Your task to perform on an android device: turn off improve location accuracy Image 0: 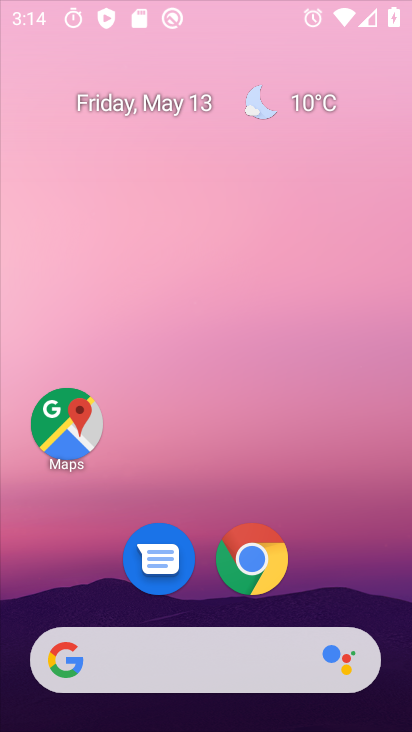
Step 0: drag from (174, 276) to (210, 183)
Your task to perform on an android device: turn off improve location accuracy Image 1: 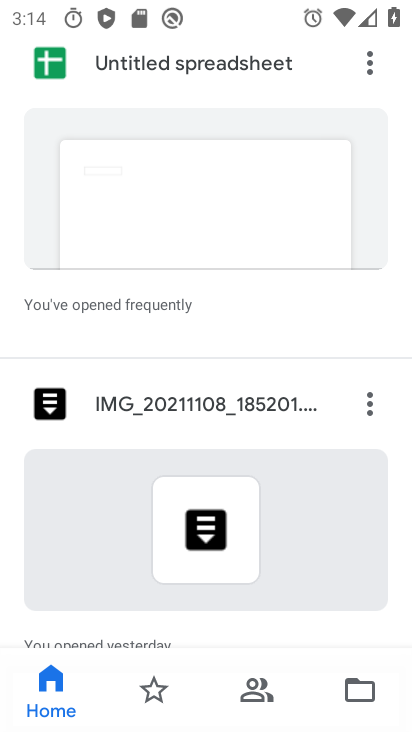
Step 1: press home button
Your task to perform on an android device: turn off improve location accuracy Image 2: 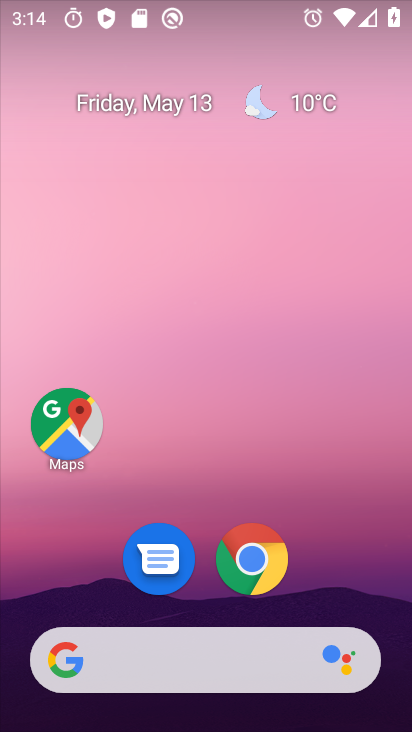
Step 2: drag from (204, 607) to (215, 150)
Your task to perform on an android device: turn off improve location accuracy Image 3: 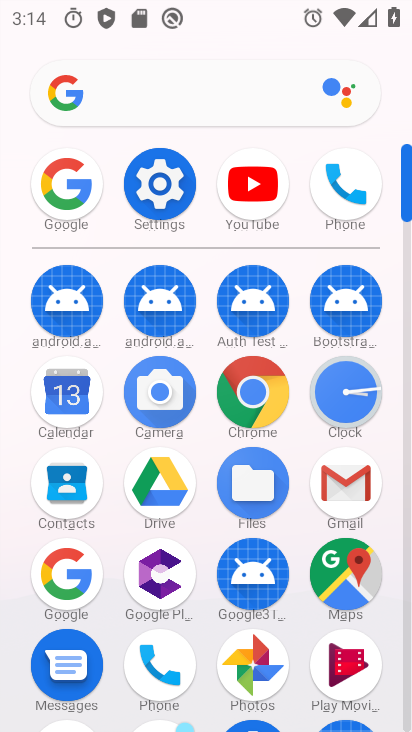
Step 3: click (177, 185)
Your task to perform on an android device: turn off improve location accuracy Image 4: 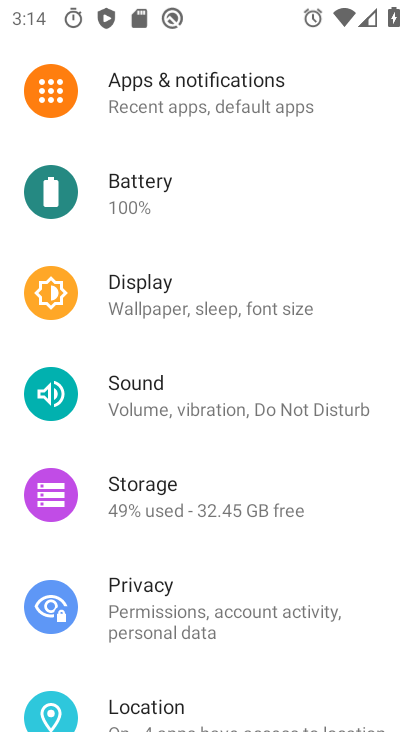
Step 4: click (201, 701)
Your task to perform on an android device: turn off improve location accuracy Image 5: 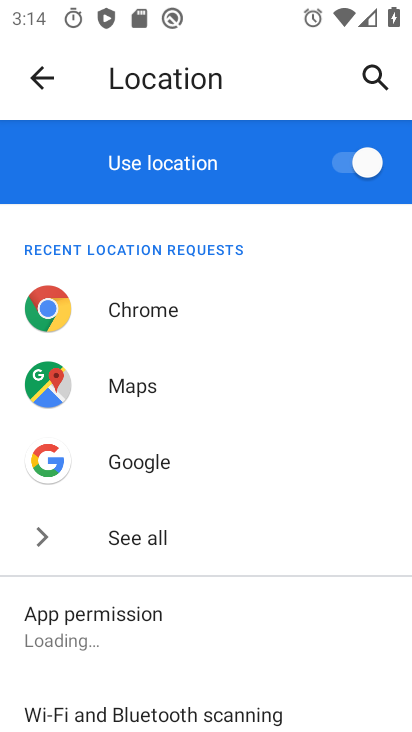
Step 5: drag from (216, 649) to (217, 326)
Your task to perform on an android device: turn off improve location accuracy Image 6: 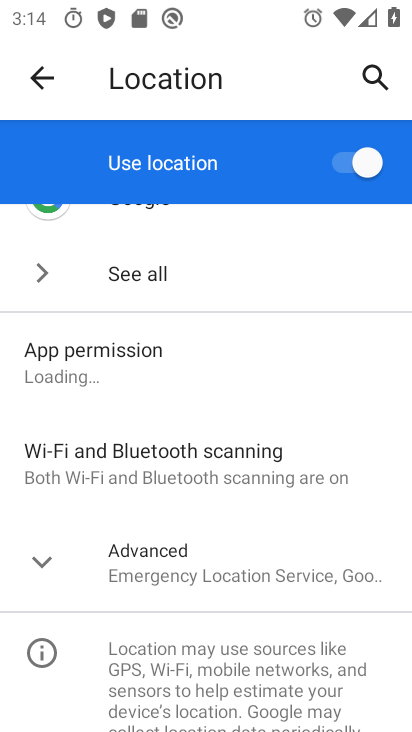
Step 6: click (204, 572)
Your task to perform on an android device: turn off improve location accuracy Image 7: 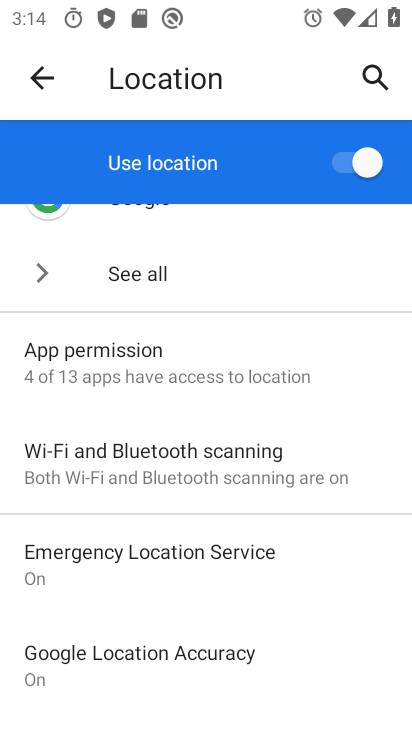
Step 7: drag from (213, 671) to (211, 454)
Your task to perform on an android device: turn off improve location accuracy Image 8: 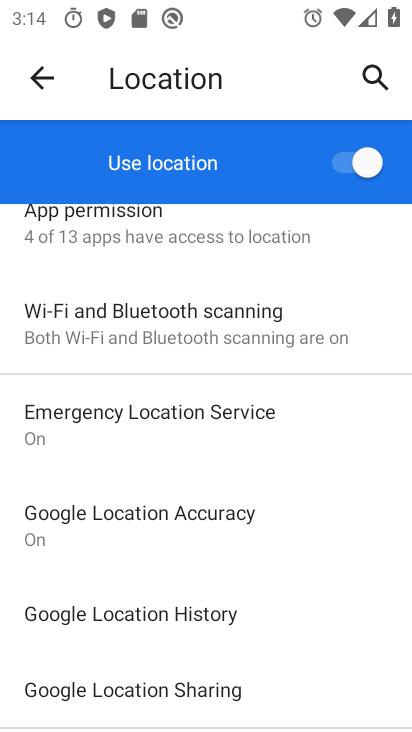
Step 8: click (204, 525)
Your task to perform on an android device: turn off improve location accuracy Image 9: 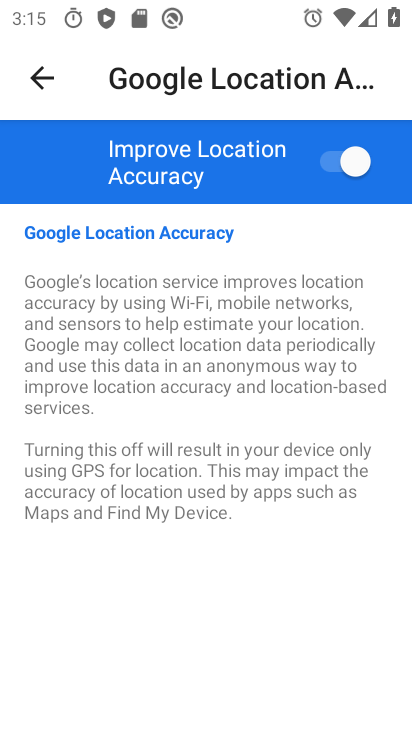
Step 9: click (332, 166)
Your task to perform on an android device: turn off improve location accuracy Image 10: 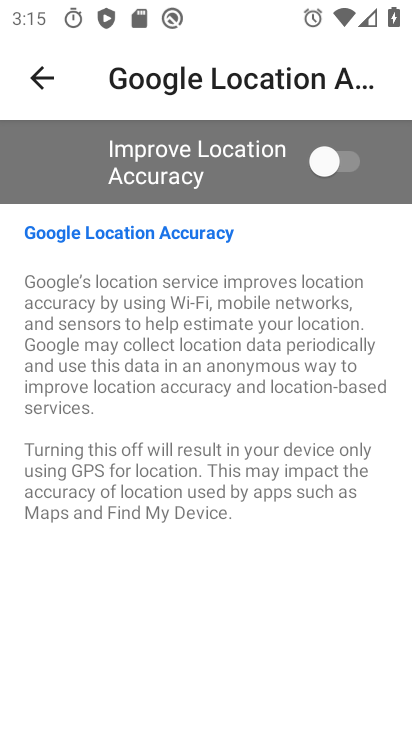
Step 10: task complete